Your task to perform on an android device: Go to settings Image 0: 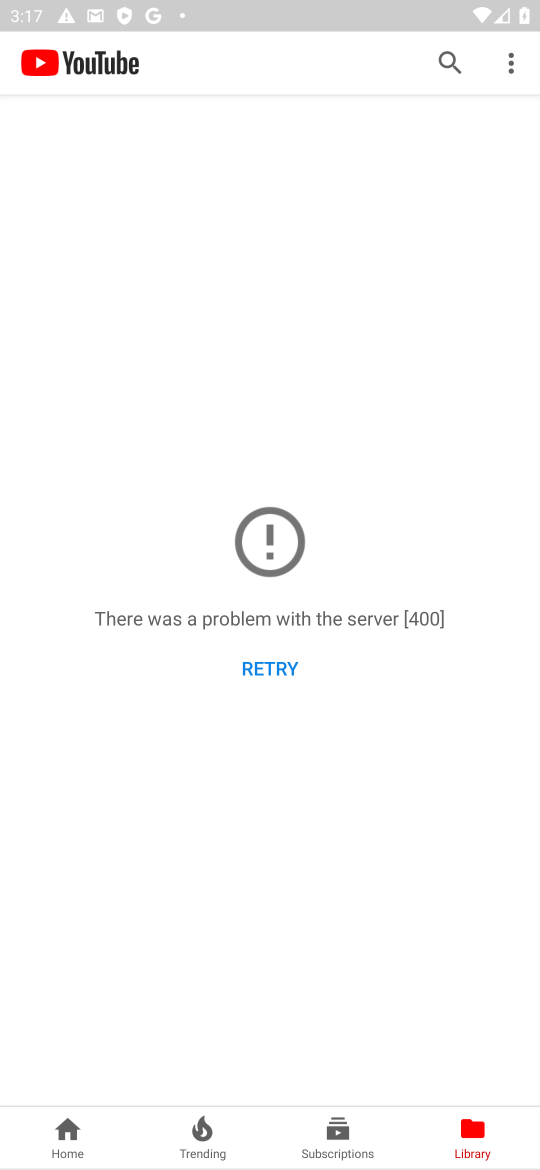
Step 0: press back button
Your task to perform on an android device: Go to settings Image 1: 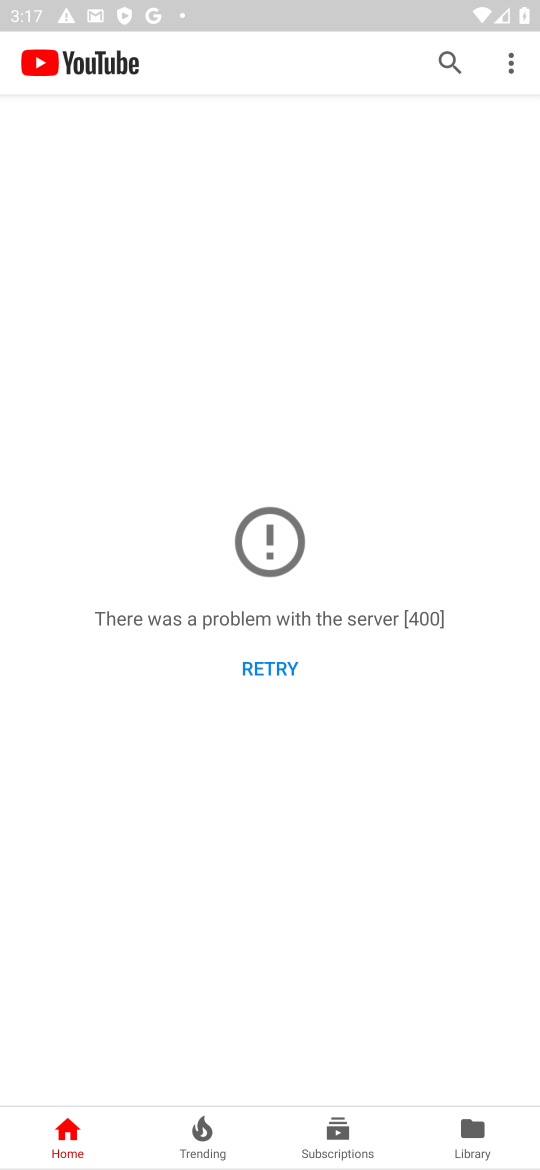
Step 1: press home button
Your task to perform on an android device: Go to settings Image 2: 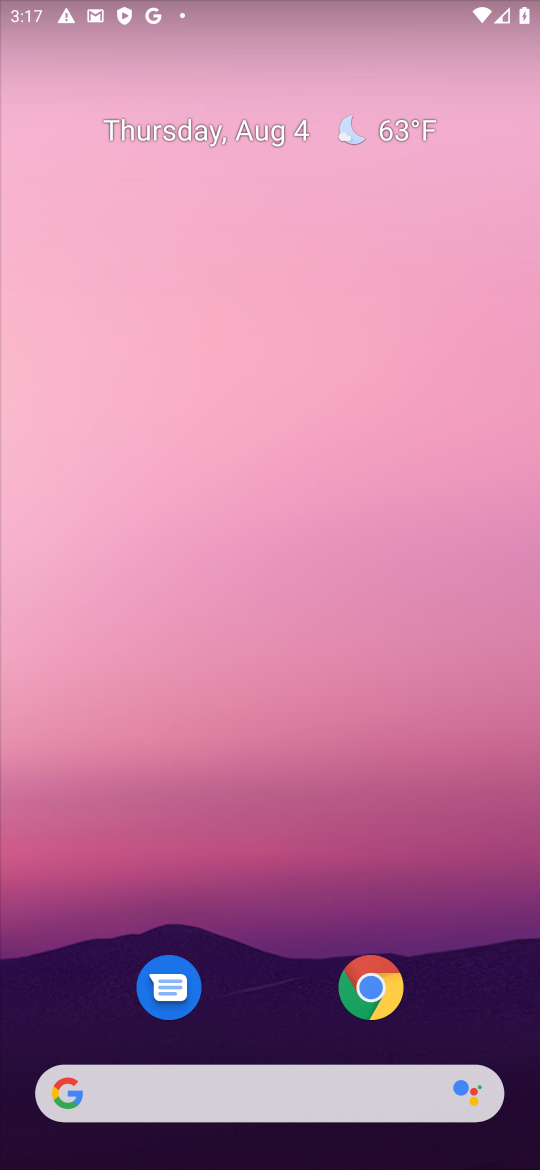
Step 2: drag from (261, 460) to (265, 395)
Your task to perform on an android device: Go to settings Image 3: 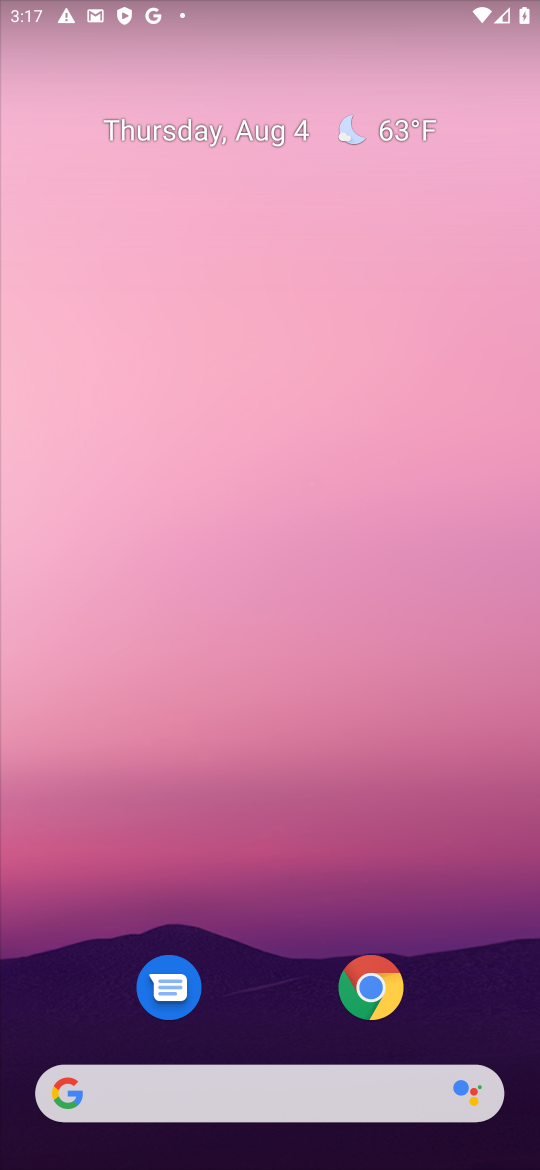
Step 3: drag from (263, 964) to (263, 404)
Your task to perform on an android device: Go to settings Image 4: 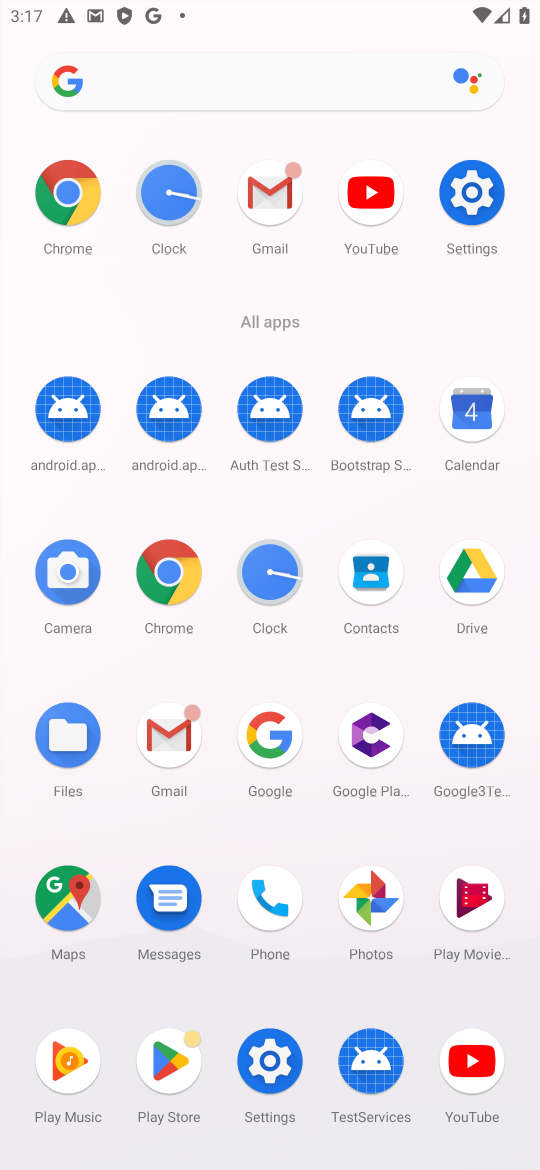
Step 4: click (471, 193)
Your task to perform on an android device: Go to settings Image 5: 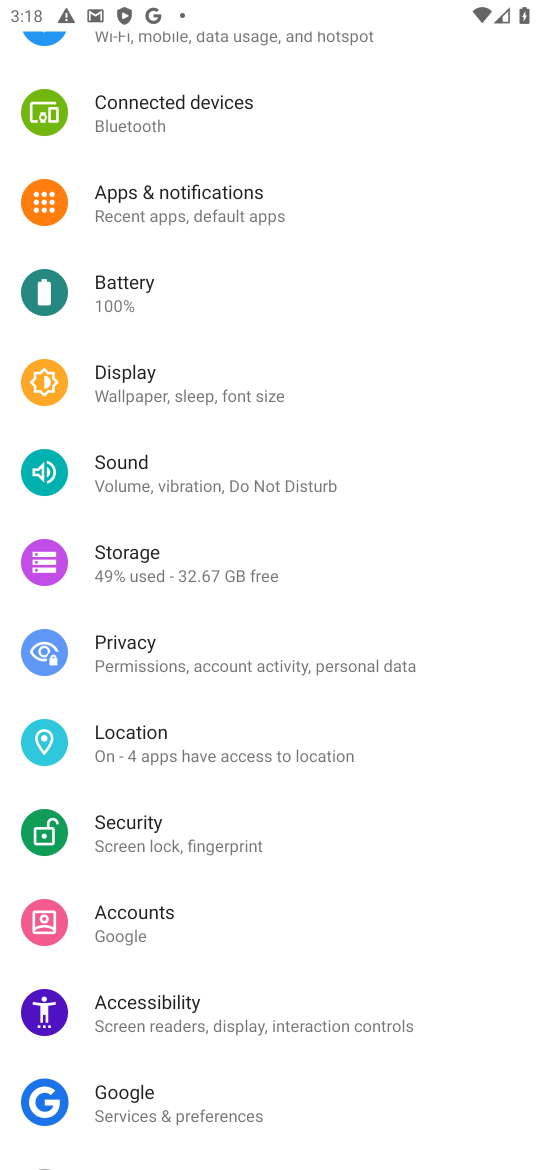
Step 5: task complete